Your task to perform on an android device: Open Maps and search for coffee Image 0: 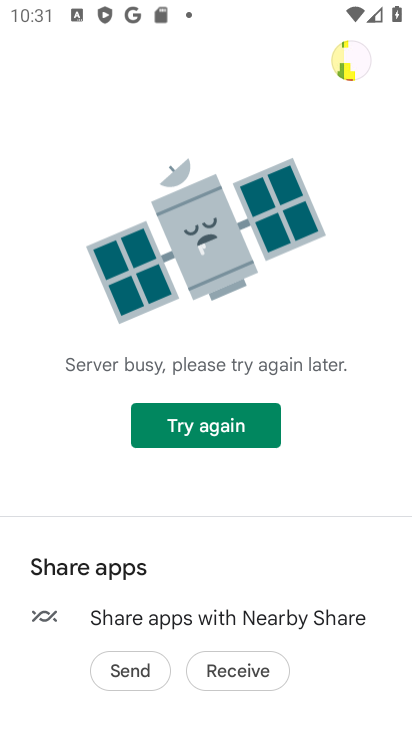
Step 0: press home button
Your task to perform on an android device: Open Maps and search for coffee Image 1: 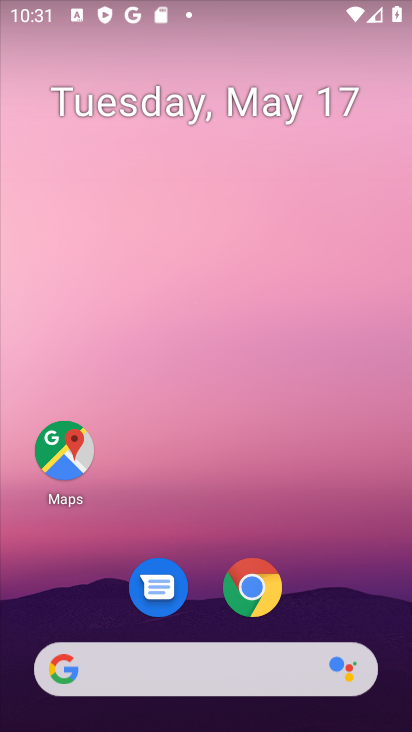
Step 1: drag from (184, 543) to (196, 65)
Your task to perform on an android device: Open Maps and search for coffee Image 2: 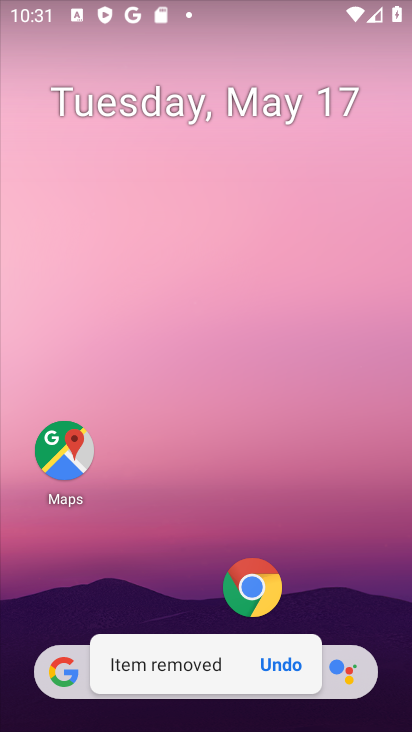
Step 2: drag from (200, 521) to (152, 3)
Your task to perform on an android device: Open Maps and search for coffee Image 3: 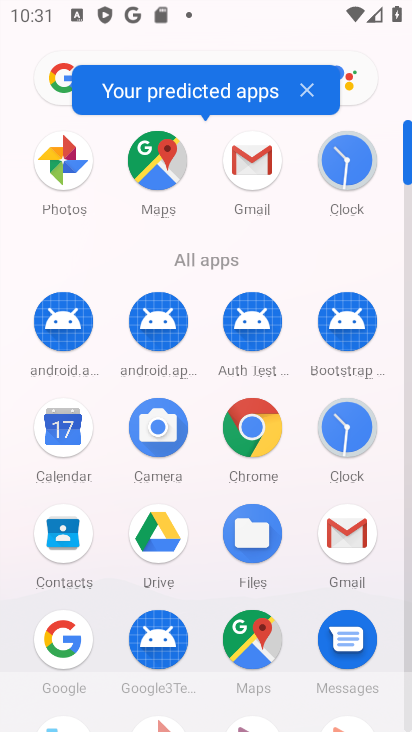
Step 3: click (238, 639)
Your task to perform on an android device: Open Maps and search for coffee Image 4: 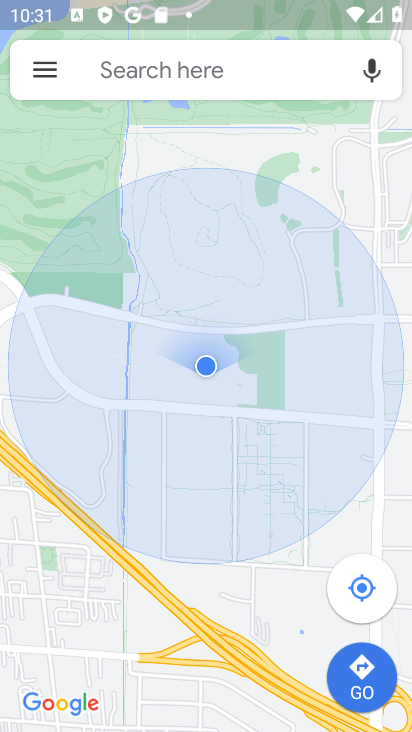
Step 4: click (194, 74)
Your task to perform on an android device: Open Maps and search for coffee Image 5: 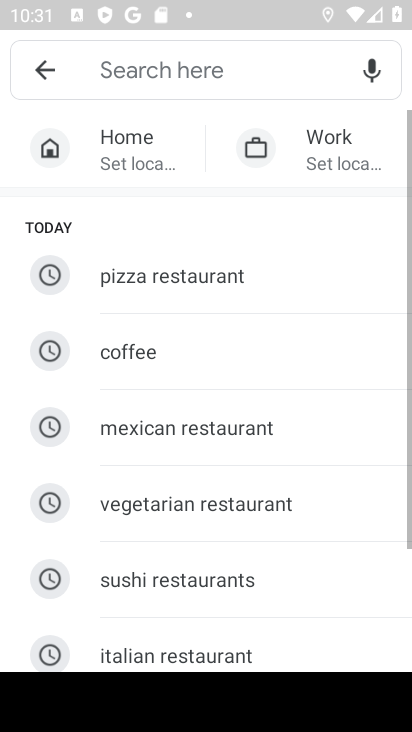
Step 5: click (187, 359)
Your task to perform on an android device: Open Maps and search for coffee Image 6: 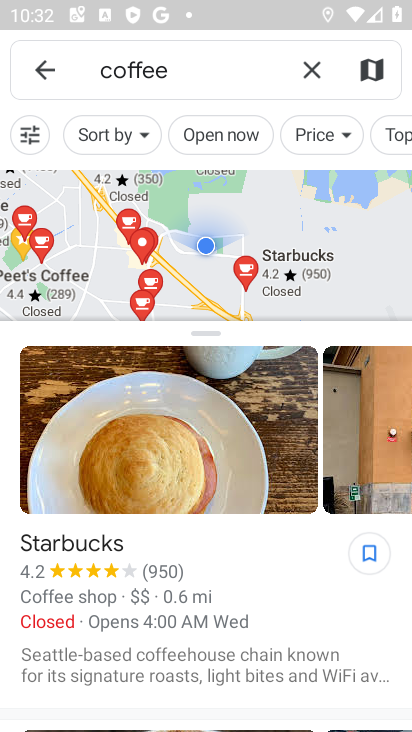
Step 6: task complete